Your task to perform on an android device: find photos in the google photos app Image 0: 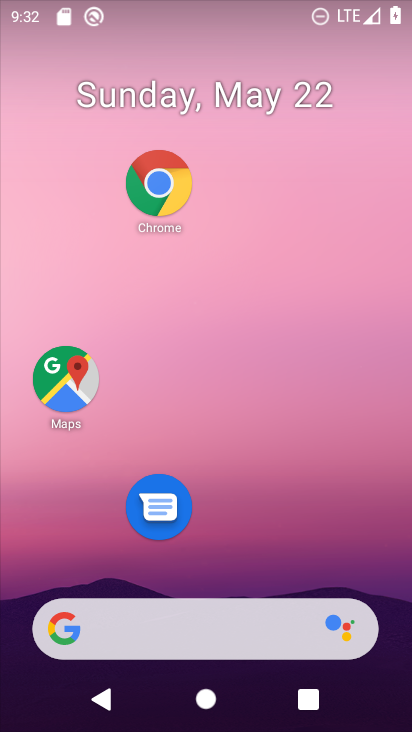
Step 0: drag from (246, 691) to (206, 7)
Your task to perform on an android device: find photos in the google photos app Image 1: 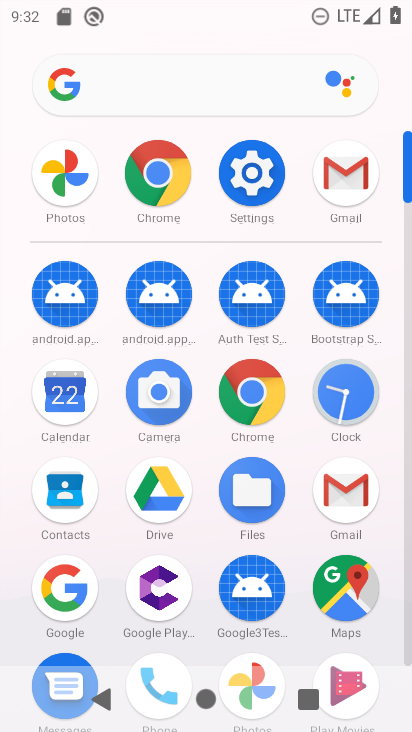
Step 1: click (239, 666)
Your task to perform on an android device: find photos in the google photos app Image 2: 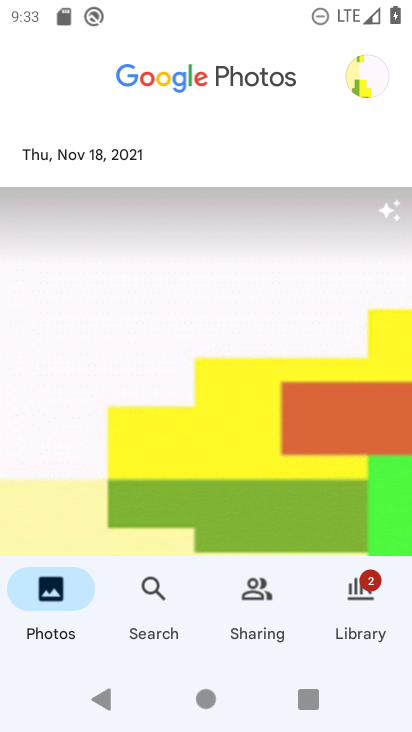
Step 2: task complete